Your task to perform on an android device: Go to Maps Image 0: 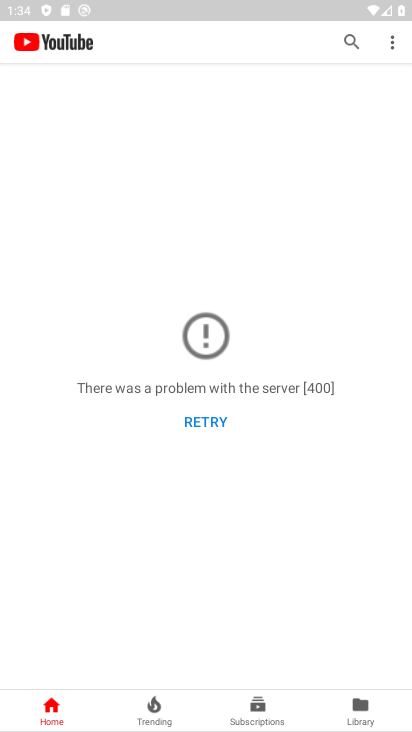
Step 0: press home button
Your task to perform on an android device: Go to Maps Image 1: 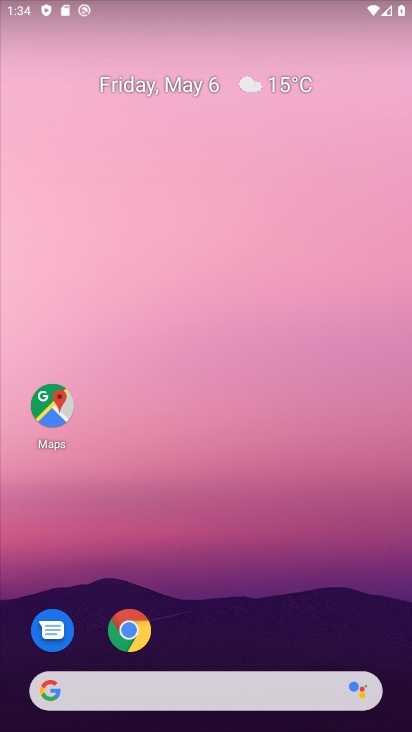
Step 1: click (61, 395)
Your task to perform on an android device: Go to Maps Image 2: 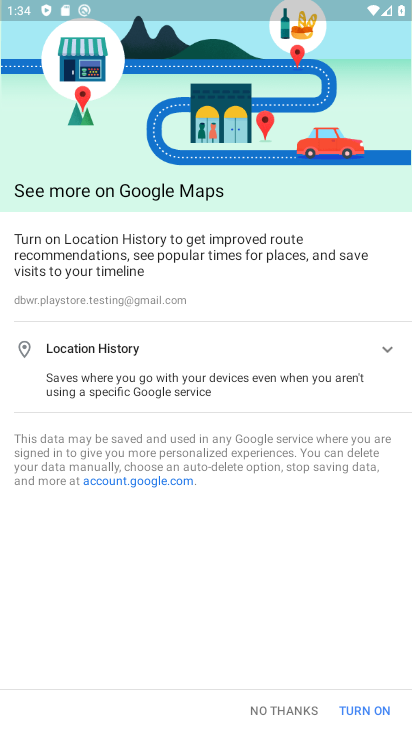
Step 2: click (364, 711)
Your task to perform on an android device: Go to Maps Image 3: 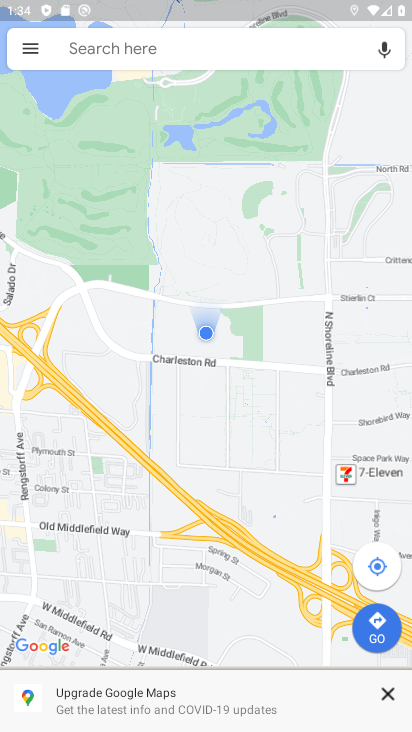
Step 3: task complete